Your task to perform on an android device: Go to notification settings Image 0: 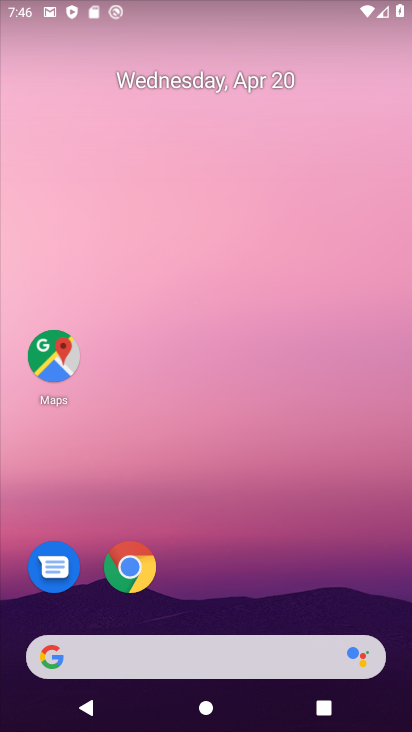
Step 0: drag from (247, 655) to (175, 7)
Your task to perform on an android device: Go to notification settings Image 1: 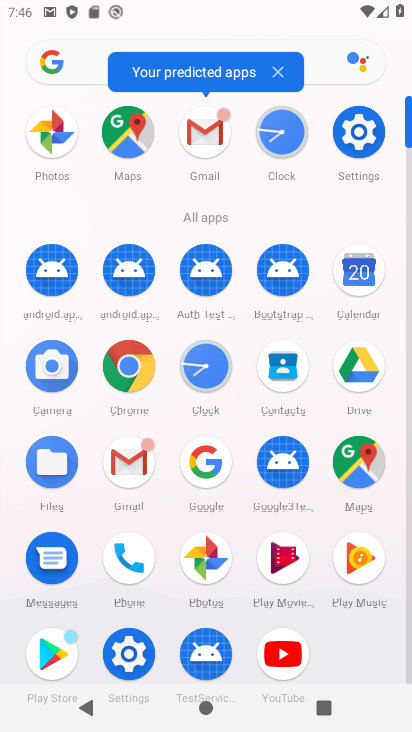
Step 1: click (346, 150)
Your task to perform on an android device: Go to notification settings Image 2: 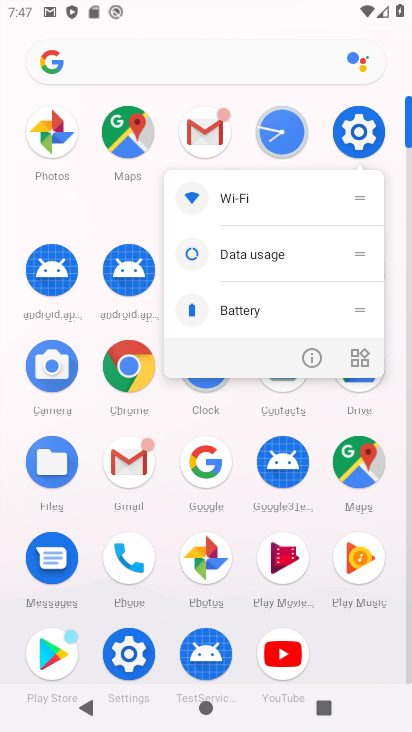
Step 2: click (354, 143)
Your task to perform on an android device: Go to notification settings Image 3: 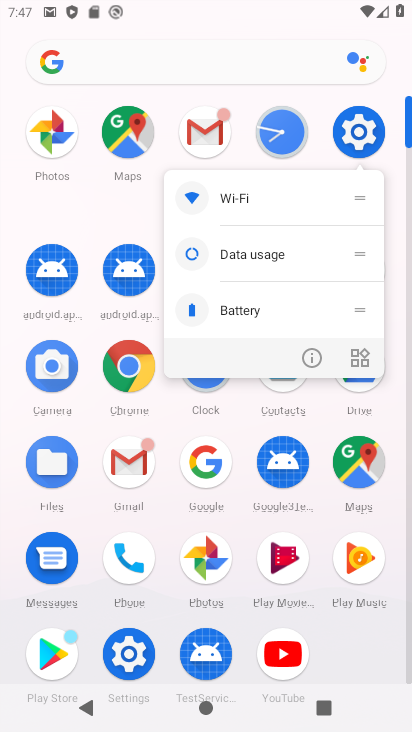
Step 3: click (354, 143)
Your task to perform on an android device: Go to notification settings Image 4: 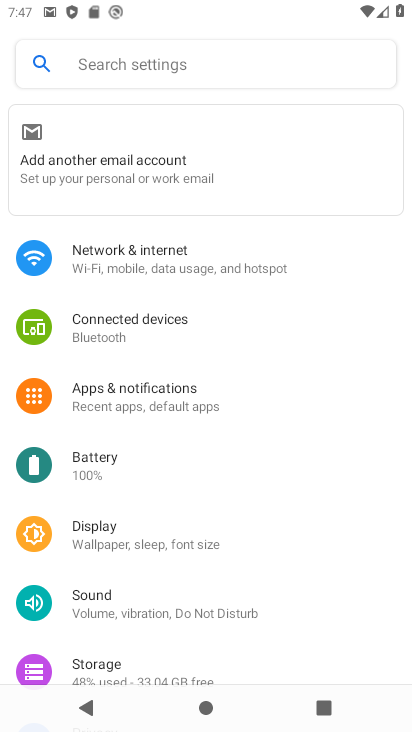
Step 4: click (212, 388)
Your task to perform on an android device: Go to notification settings Image 5: 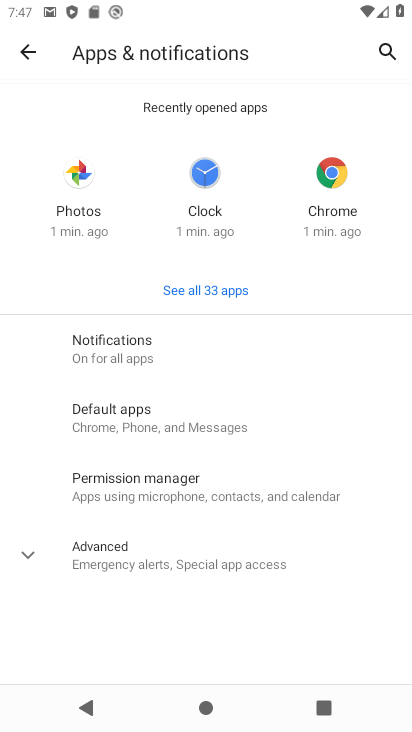
Step 5: task complete